Your task to perform on an android device: Go to Yahoo.com Image 0: 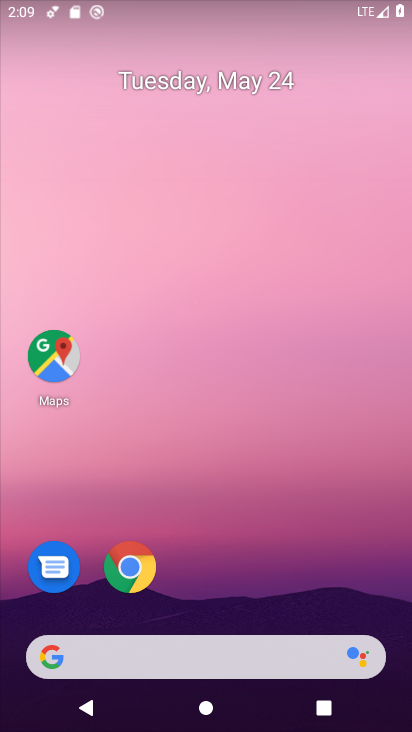
Step 0: click (141, 563)
Your task to perform on an android device: Go to Yahoo.com Image 1: 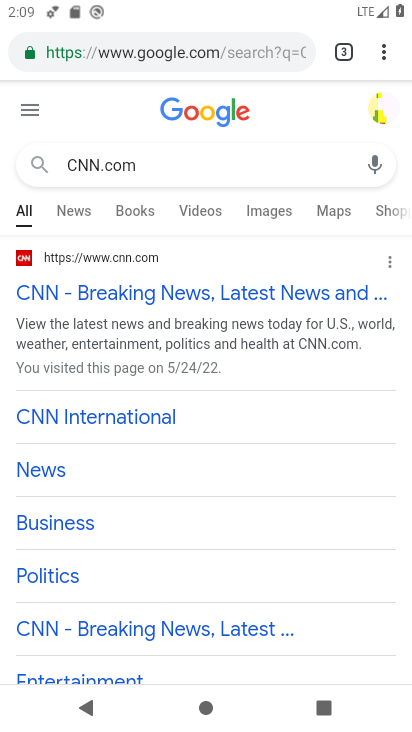
Step 1: click (238, 59)
Your task to perform on an android device: Go to Yahoo.com Image 2: 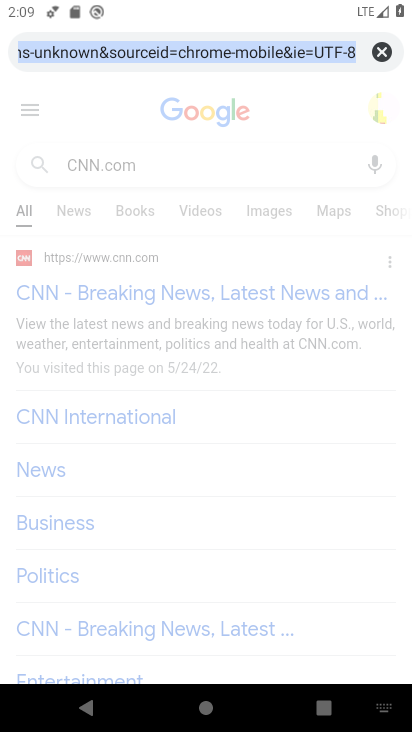
Step 2: type "yahoo.com"
Your task to perform on an android device: Go to Yahoo.com Image 3: 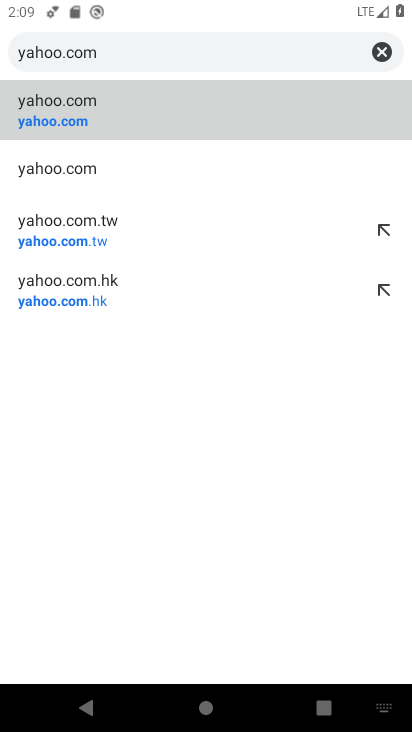
Step 3: click (107, 109)
Your task to perform on an android device: Go to Yahoo.com Image 4: 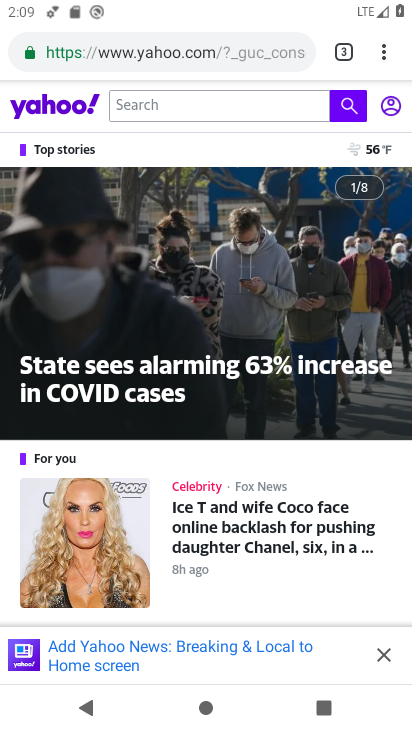
Step 4: task complete